Your task to perform on an android device: check the backup settings in the google photos Image 0: 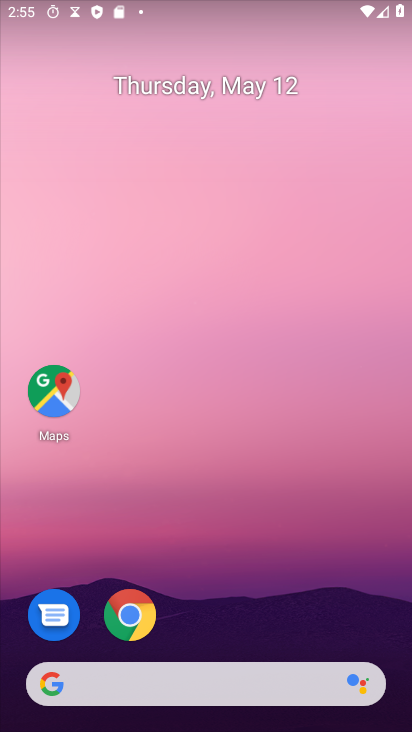
Step 0: press home button
Your task to perform on an android device: check the backup settings in the google photos Image 1: 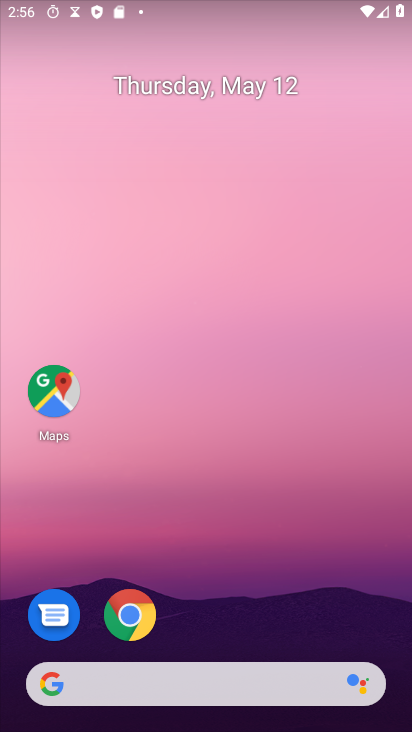
Step 1: drag from (17, 639) to (223, 75)
Your task to perform on an android device: check the backup settings in the google photos Image 2: 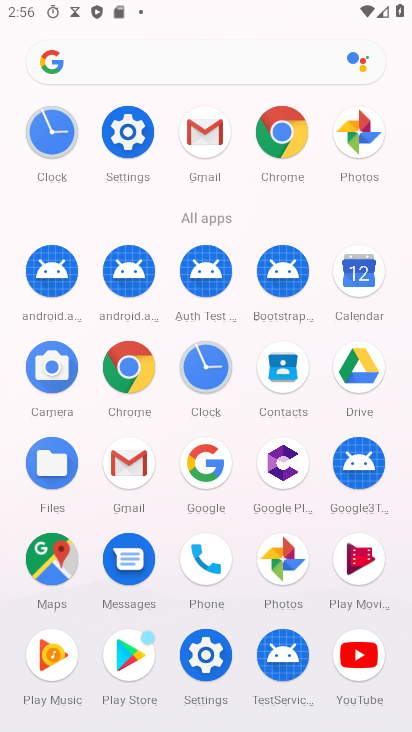
Step 2: click (266, 555)
Your task to perform on an android device: check the backup settings in the google photos Image 3: 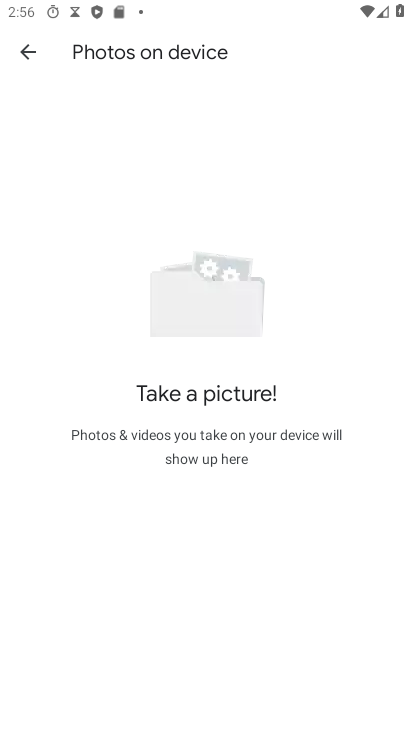
Step 3: click (20, 46)
Your task to perform on an android device: check the backup settings in the google photos Image 4: 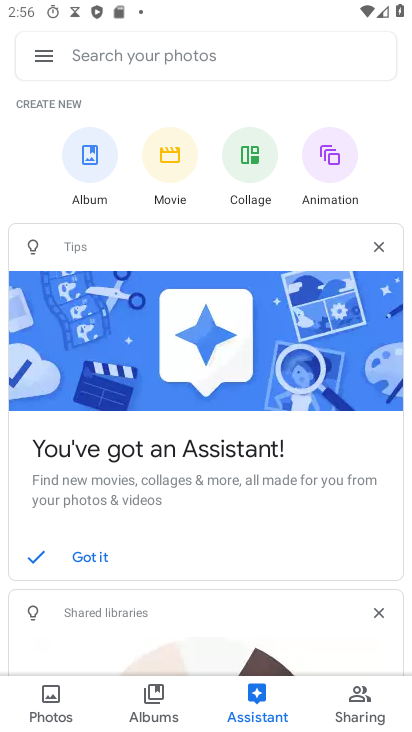
Step 4: click (37, 48)
Your task to perform on an android device: check the backup settings in the google photos Image 5: 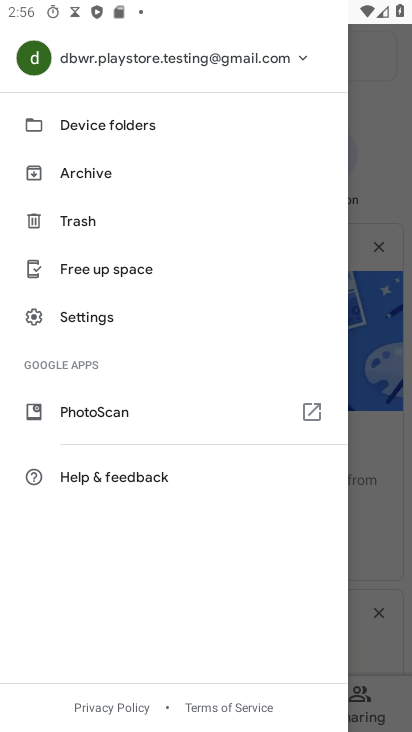
Step 5: click (76, 301)
Your task to perform on an android device: check the backup settings in the google photos Image 6: 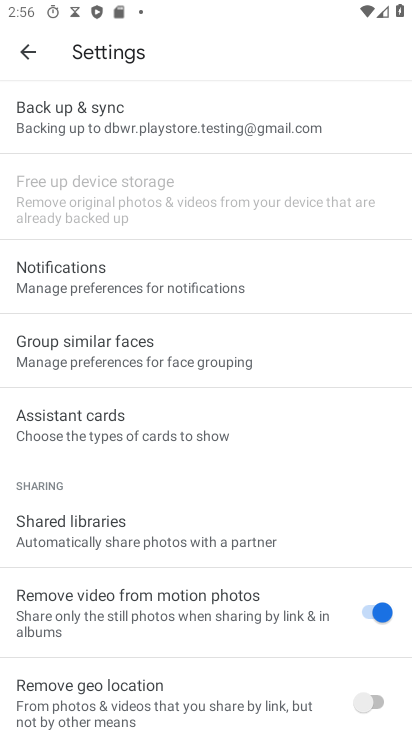
Step 6: click (274, 113)
Your task to perform on an android device: check the backup settings in the google photos Image 7: 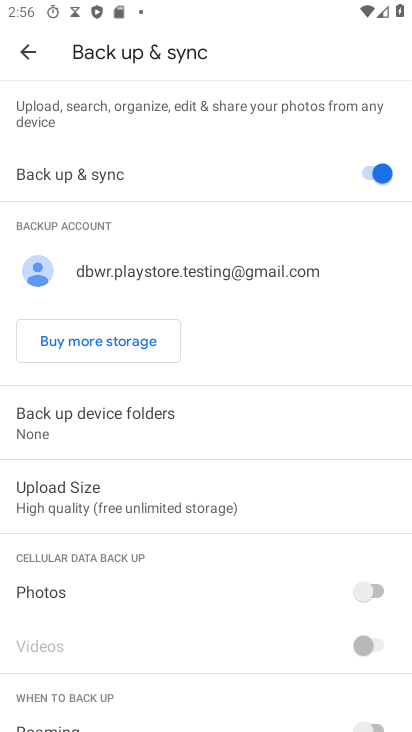
Step 7: task complete